Your task to perform on an android device: check storage Image 0: 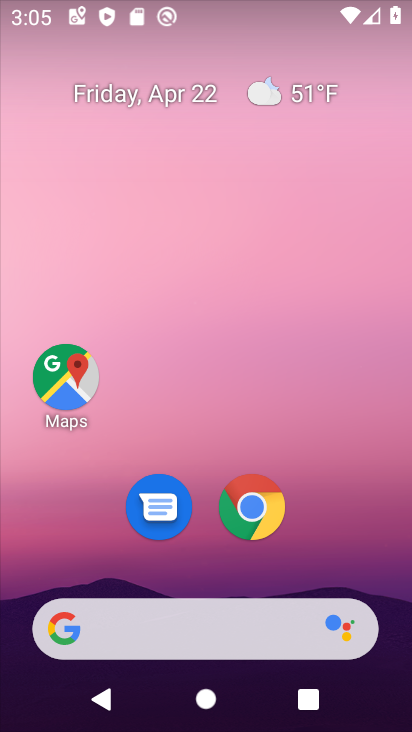
Step 0: drag from (168, 493) to (200, 76)
Your task to perform on an android device: check storage Image 1: 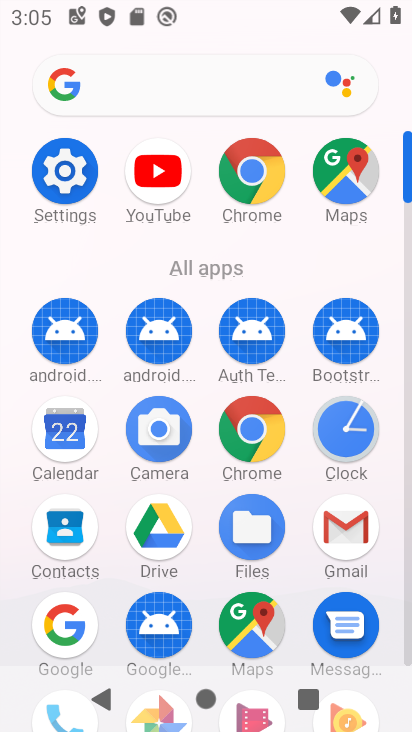
Step 1: click (73, 168)
Your task to perform on an android device: check storage Image 2: 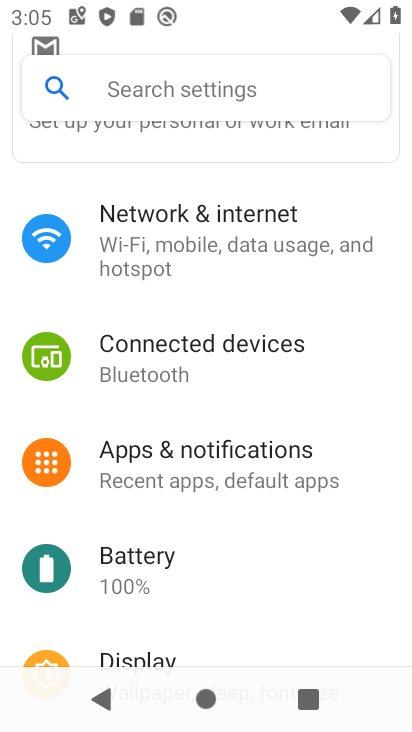
Step 2: drag from (222, 597) to (330, 63)
Your task to perform on an android device: check storage Image 3: 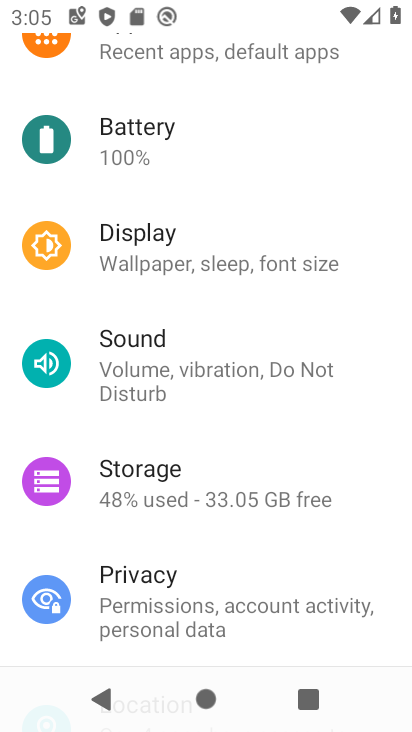
Step 3: click (190, 487)
Your task to perform on an android device: check storage Image 4: 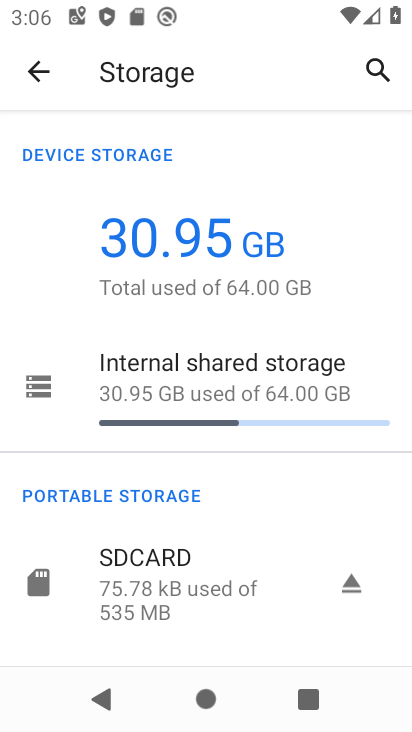
Step 4: task complete